Your task to perform on an android device: Go to accessibility settings Image 0: 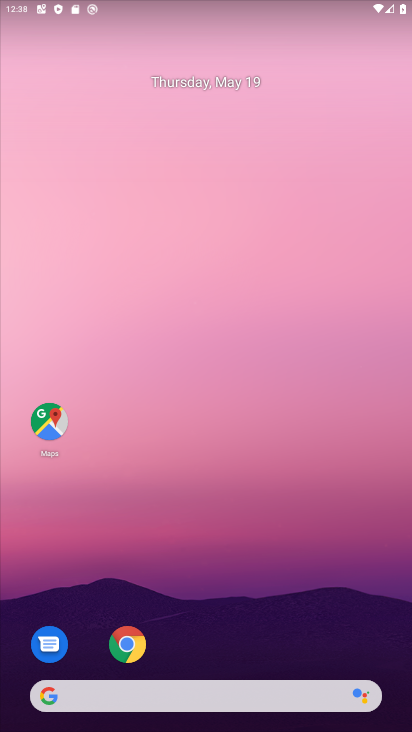
Step 0: drag from (237, 528) to (242, 158)
Your task to perform on an android device: Go to accessibility settings Image 1: 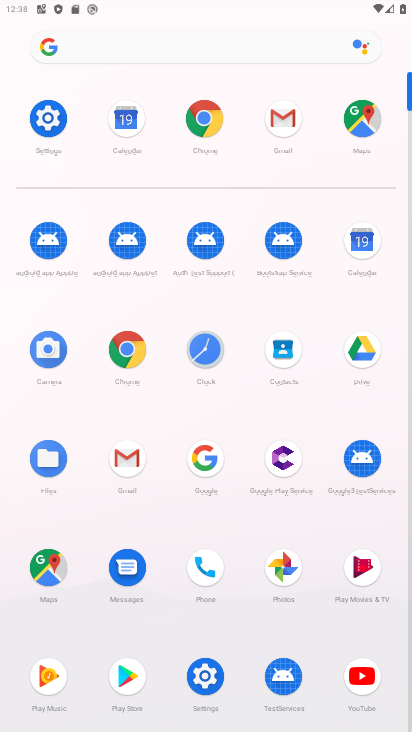
Step 1: click (204, 669)
Your task to perform on an android device: Go to accessibility settings Image 2: 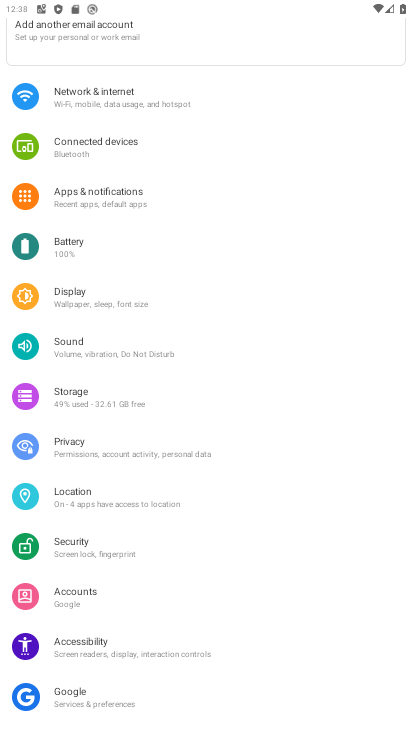
Step 2: click (151, 641)
Your task to perform on an android device: Go to accessibility settings Image 3: 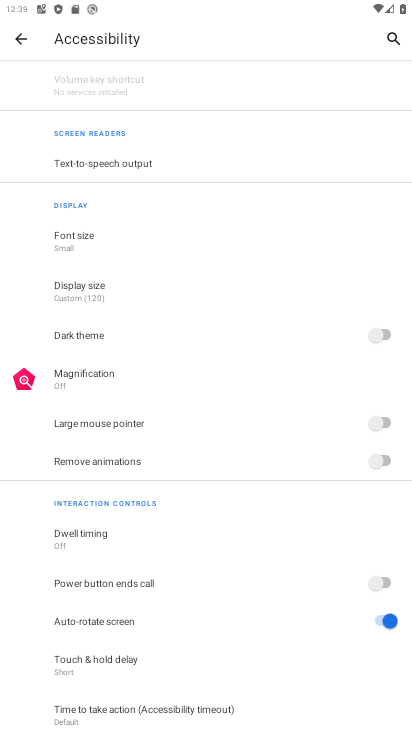
Step 3: task complete